Your task to perform on an android device: install app "Lyft - Rideshare, Bikes, Scooters & Transit" Image 0: 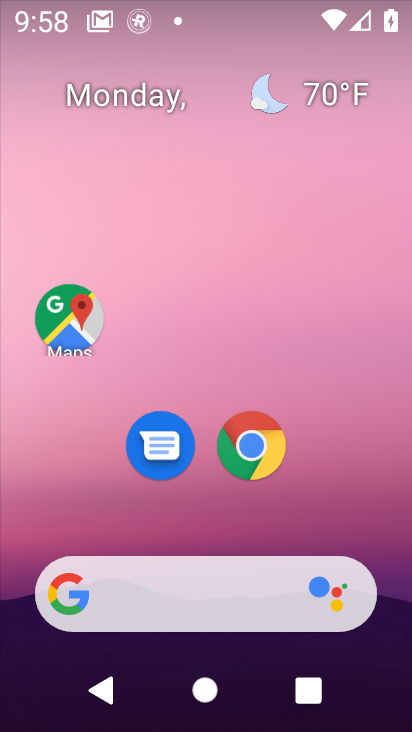
Step 0: drag from (283, 557) to (377, 126)
Your task to perform on an android device: install app "Lyft - Rideshare, Bikes, Scooters & Transit" Image 1: 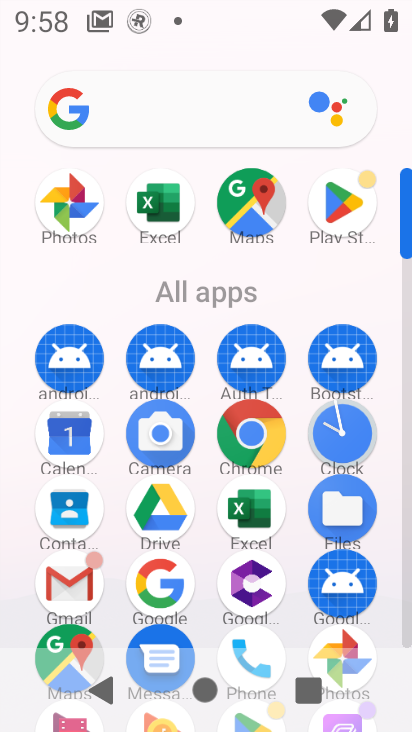
Step 1: click (337, 213)
Your task to perform on an android device: install app "Lyft - Rideshare, Bikes, Scooters & Transit" Image 2: 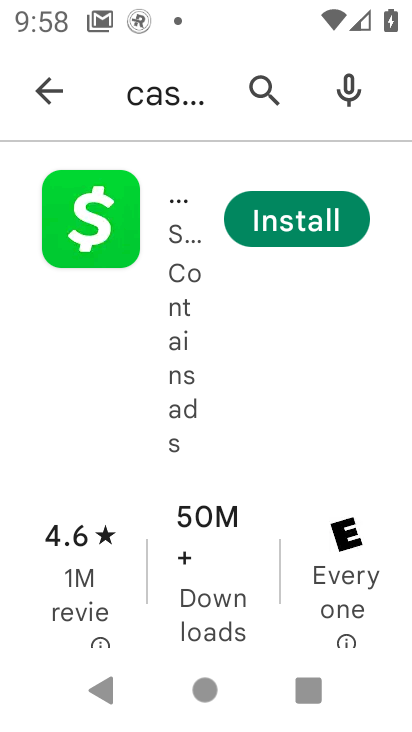
Step 2: click (53, 99)
Your task to perform on an android device: install app "Lyft - Rideshare, Bikes, Scooters & Transit" Image 3: 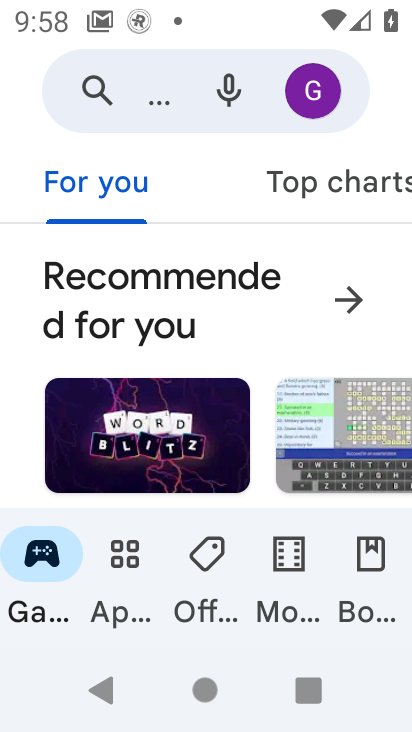
Step 3: click (117, 94)
Your task to perform on an android device: install app "Lyft - Rideshare, Bikes, Scooters & Transit" Image 4: 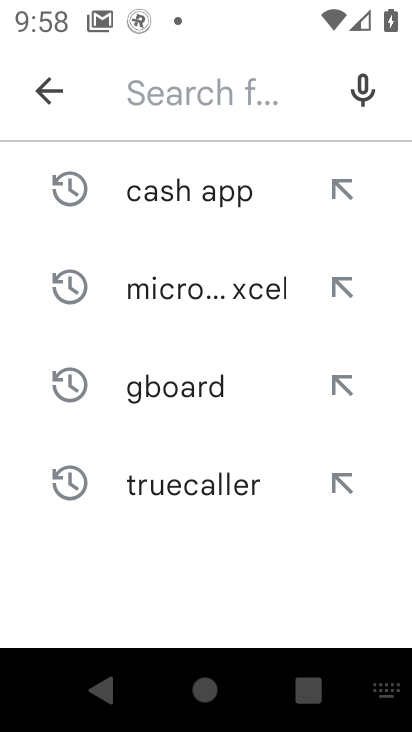
Step 4: type "Lyft - Rideshare, Bikes, Scooters & Transit"
Your task to perform on an android device: install app "Lyft - Rideshare, Bikes, Scooters & Transit" Image 5: 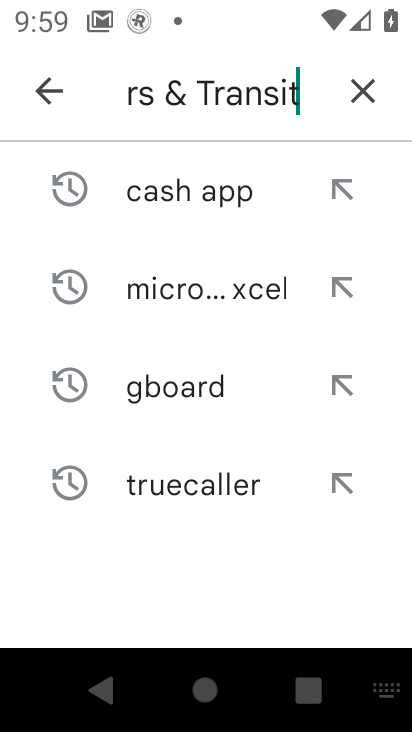
Step 5: type ""
Your task to perform on an android device: install app "Lyft - Rideshare, Bikes, Scooters & Transit" Image 6: 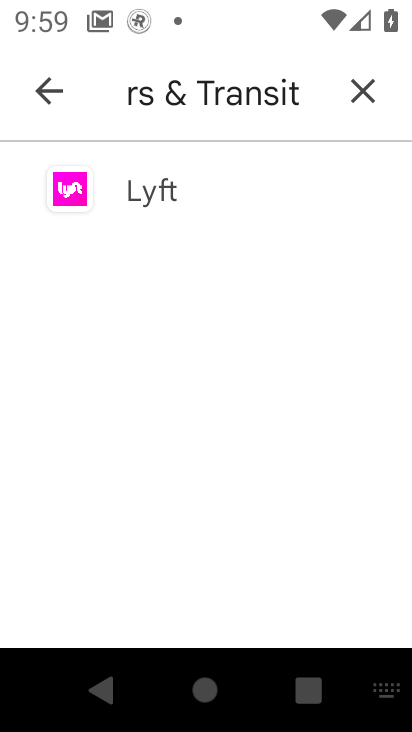
Step 6: click (172, 186)
Your task to perform on an android device: install app "Lyft - Rideshare, Bikes, Scooters & Transit" Image 7: 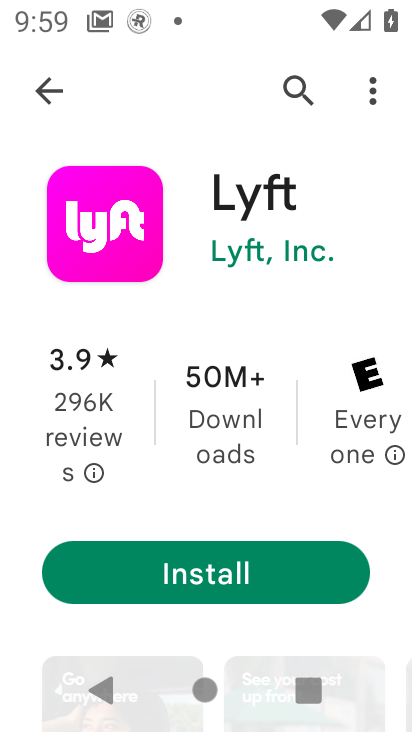
Step 7: click (169, 564)
Your task to perform on an android device: install app "Lyft - Rideshare, Bikes, Scooters & Transit" Image 8: 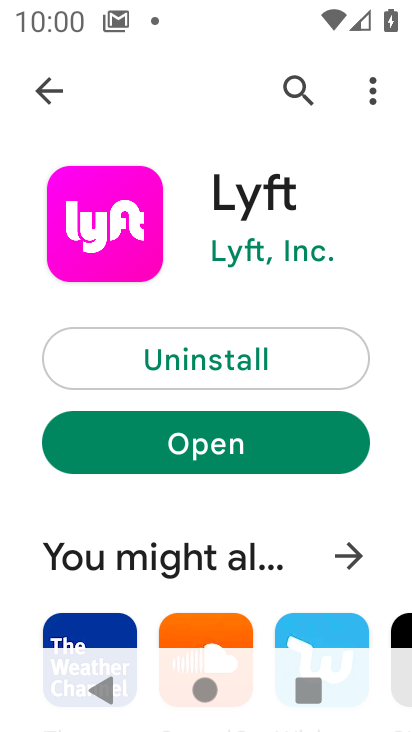
Step 8: task complete